Your task to perform on an android device: What's on the menu at Subway? Image 0: 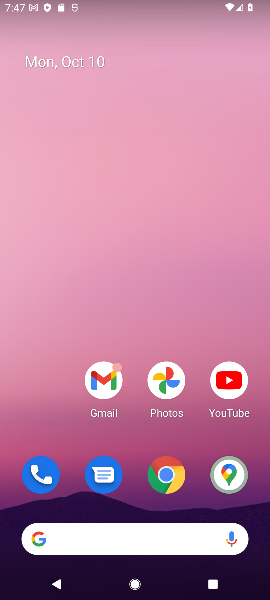
Step 0: click (168, 471)
Your task to perform on an android device: What's on the menu at Subway? Image 1: 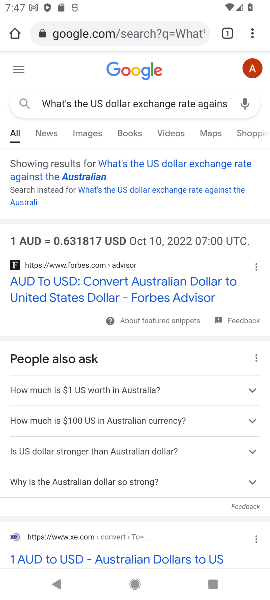
Step 1: click (125, 25)
Your task to perform on an android device: What's on the menu at Subway? Image 2: 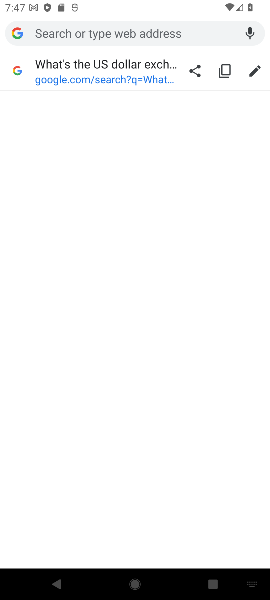
Step 2: type "What's on the menu at Subway?"
Your task to perform on an android device: What's on the menu at Subway? Image 3: 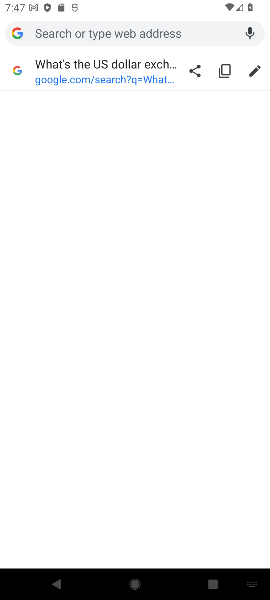
Step 3: click (130, 30)
Your task to perform on an android device: What's on the menu at Subway? Image 4: 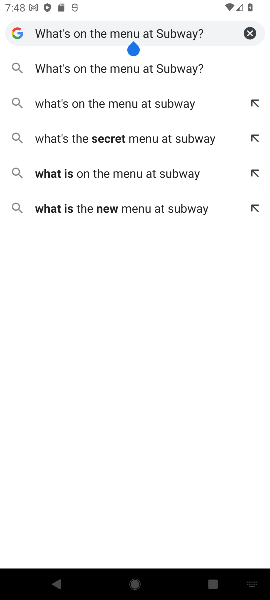
Step 4: click (162, 73)
Your task to perform on an android device: What's on the menu at Subway? Image 5: 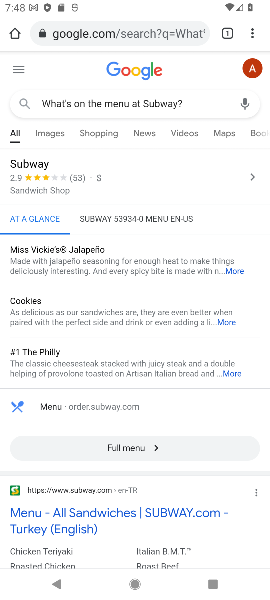
Step 5: task complete